Your task to perform on an android device: Open settings Image 0: 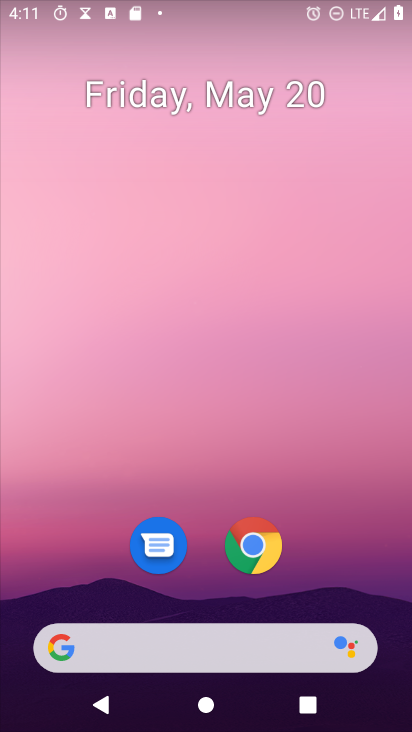
Step 0: drag from (249, 583) to (303, 15)
Your task to perform on an android device: Open settings Image 1: 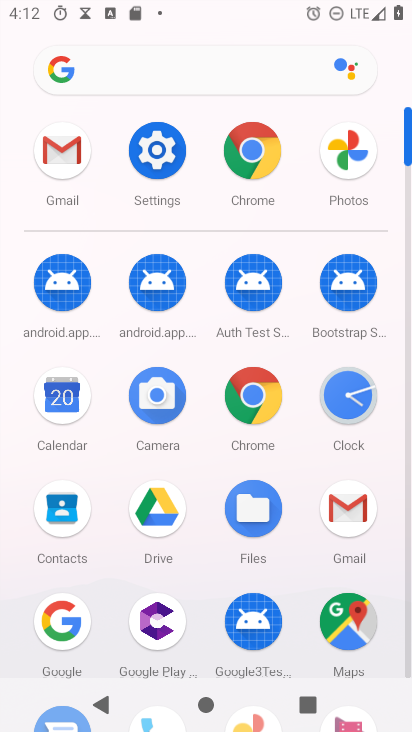
Step 1: click (174, 155)
Your task to perform on an android device: Open settings Image 2: 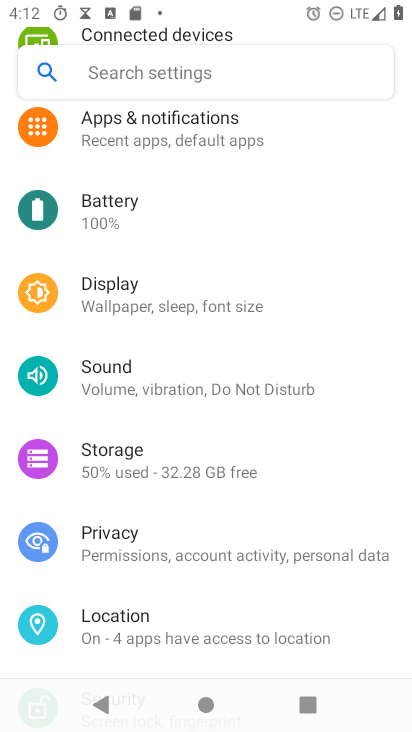
Step 2: task complete